Your task to perform on an android device: Open Chrome and go to settings Image 0: 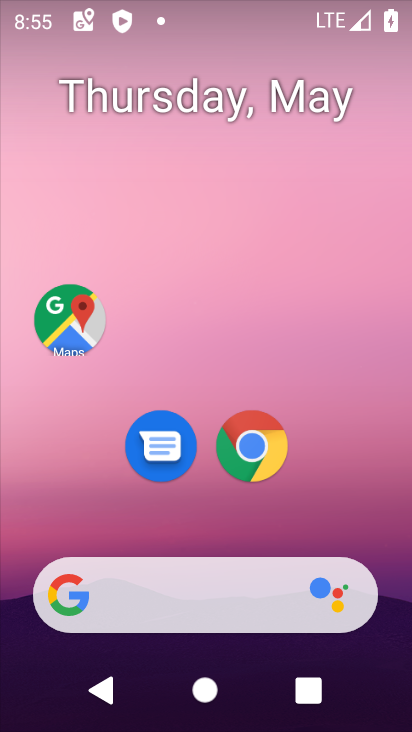
Step 0: click (253, 441)
Your task to perform on an android device: Open Chrome and go to settings Image 1: 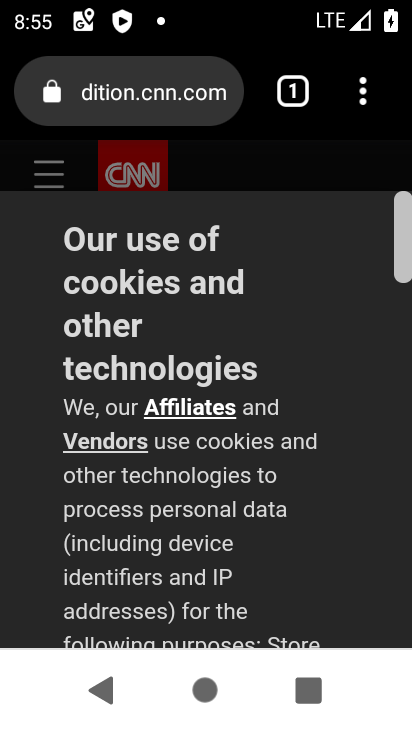
Step 1: click (361, 102)
Your task to perform on an android device: Open Chrome and go to settings Image 2: 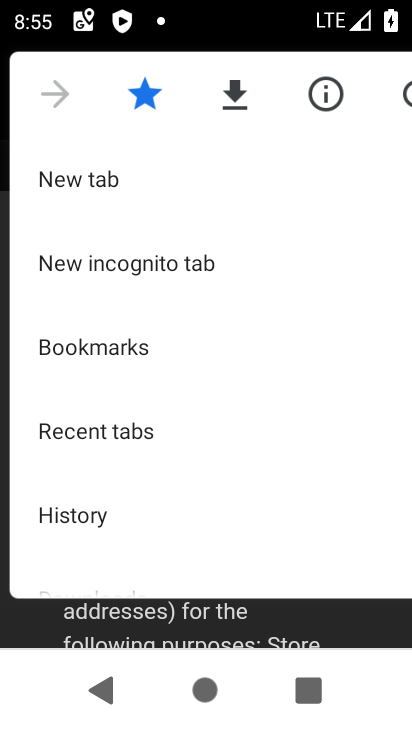
Step 2: drag from (216, 543) to (212, 131)
Your task to perform on an android device: Open Chrome and go to settings Image 3: 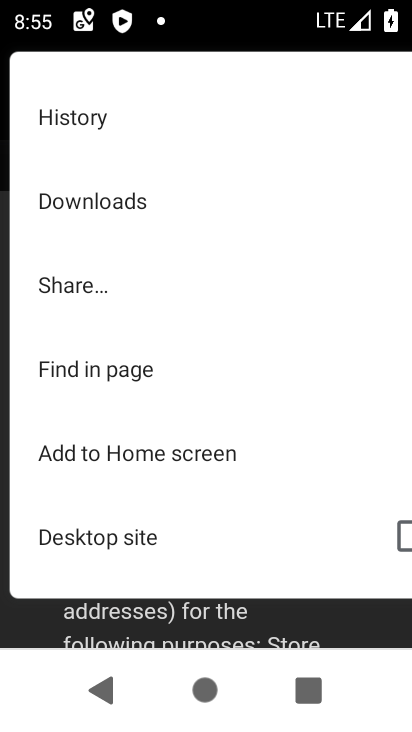
Step 3: drag from (223, 556) to (240, 335)
Your task to perform on an android device: Open Chrome and go to settings Image 4: 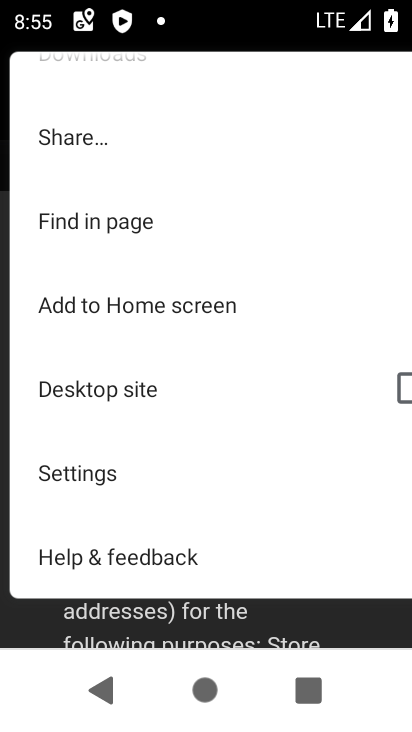
Step 4: click (78, 479)
Your task to perform on an android device: Open Chrome and go to settings Image 5: 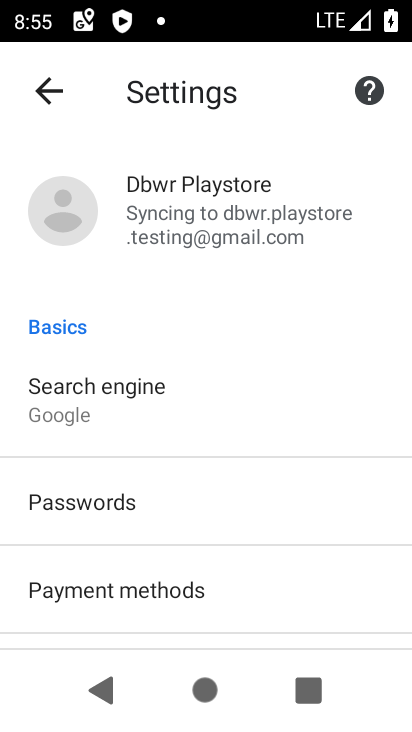
Step 5: task complete